Your task to perform on an android device: turn off wifi Image 0: 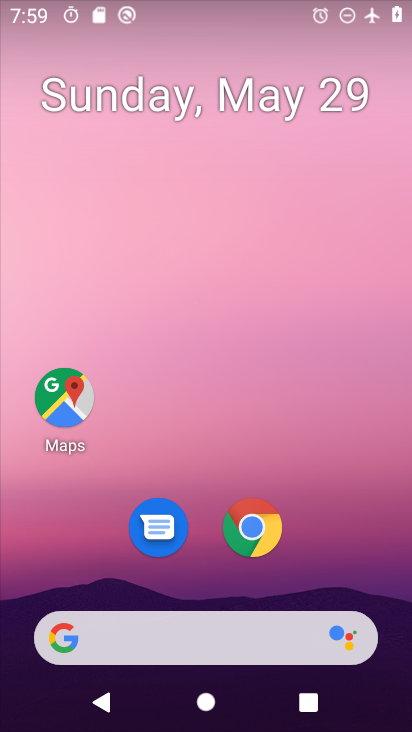
Step 0: drag from (211, 4) to (215, 363)
Your task to perform on an android device: turn off wifi Image 1: 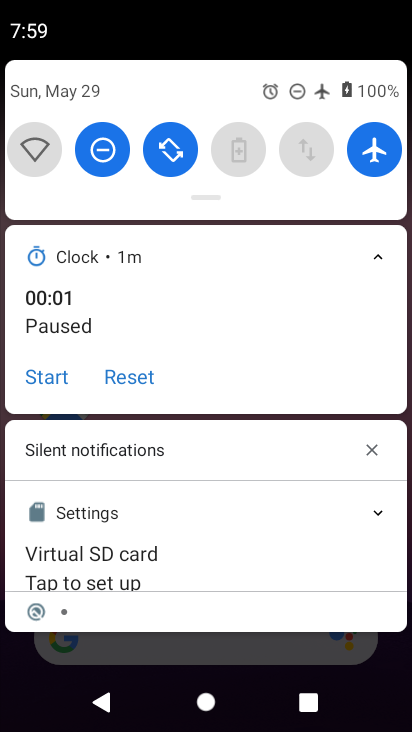
Step 1: task complete